Your task to perform on an android device: Go to ESPN.com Image 0: 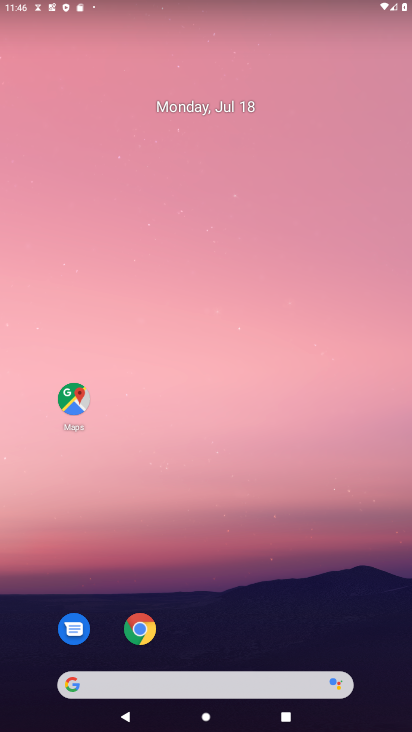
Step 0: drag from (229, 656) to (322, 223)
Your task to perform on an android device: Go to ESPN.com Image 1: 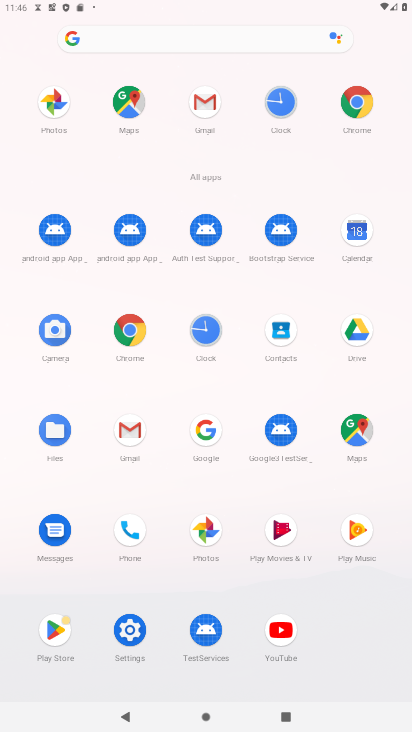
Step 1: click (135, 327)
Your task to perform on an android device: Go to ESPN.com Image 2: 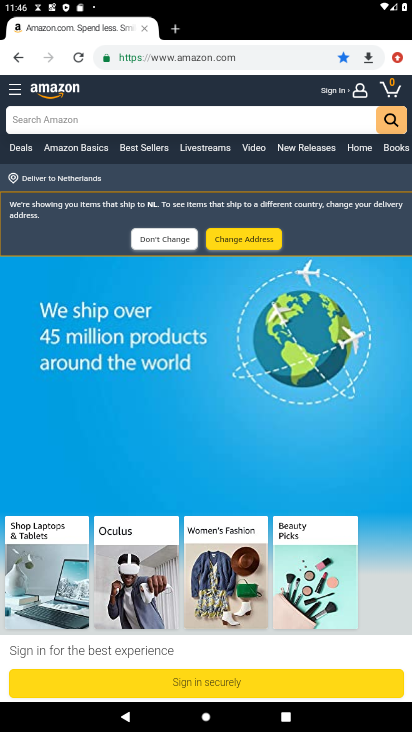
Step 2: drag from (403, 54) to (389, 91)
Your task to perform on an android device: Go to ESPN.com Image 3: 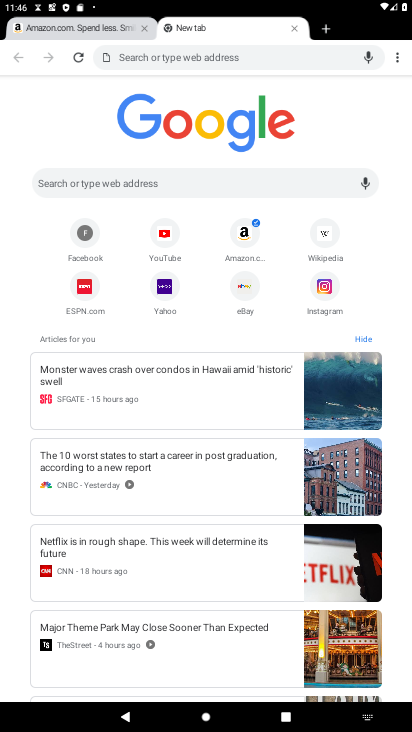
Step 3: click (82, 290)
Your task to perform on an android device: Go to ESPN.com Image 4: 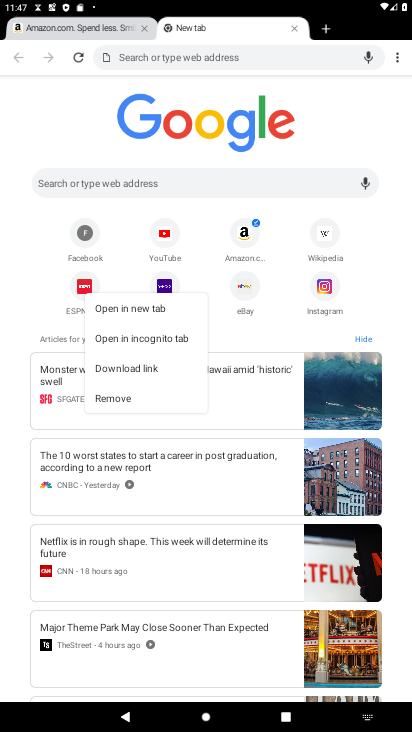
Step 4: click (80, 278)
Your task to perform on an android device: Go to ESPN.com Image 5: 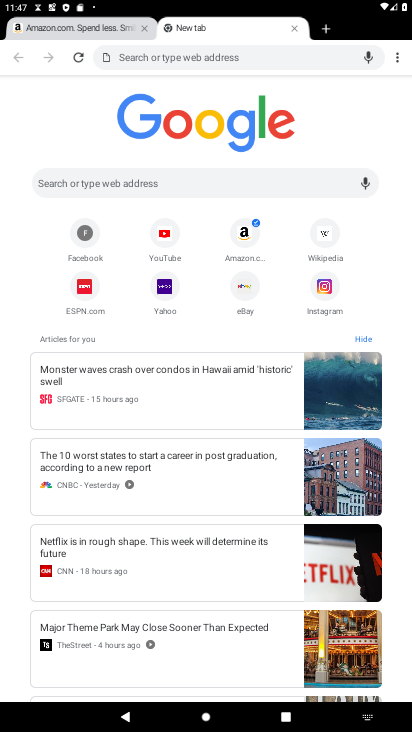
Step 5: click (95, 285)
Your task to perform on an android device: Go to ESPN.com Image 6: 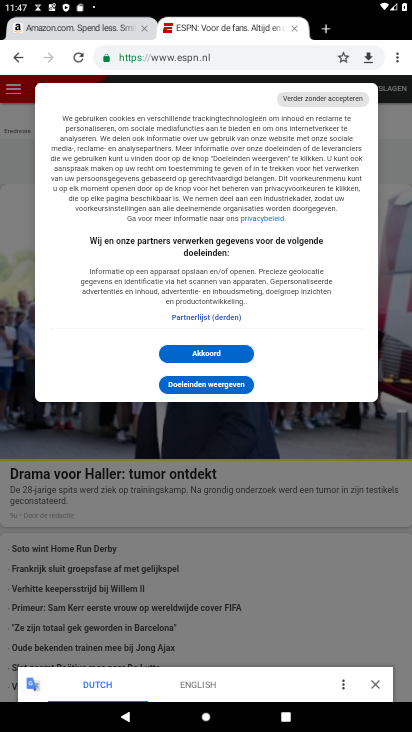
Step 6: click (224, 359)
Your task to perform on an android device: Go to ESPN.com Image 7: 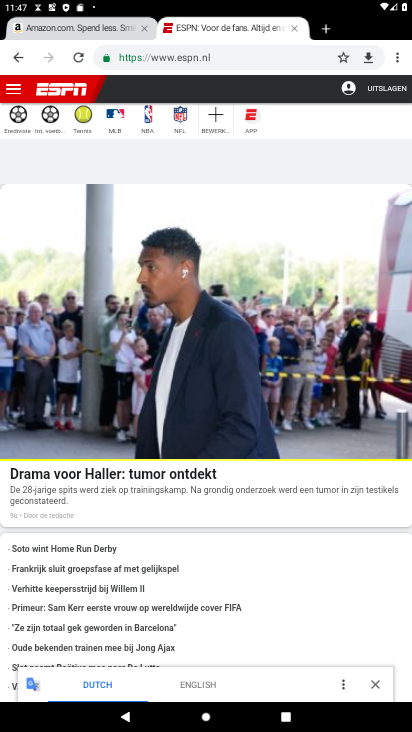
Step 7: task complete